Your task to perform on an android device: check google app version Image 0: 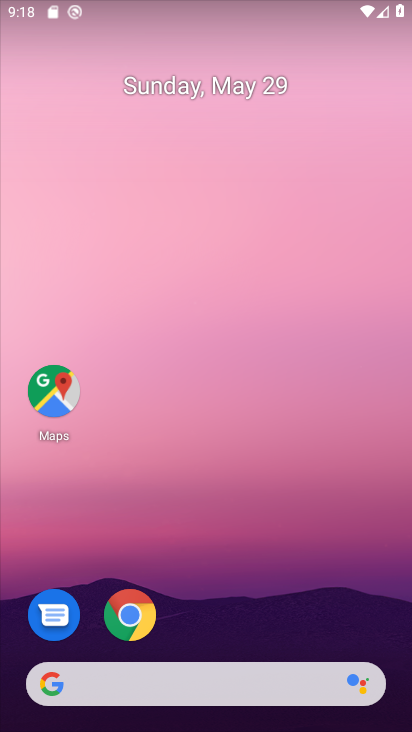
Step 0: drag from (243, 618) to (246, 6)
Your task to perform on an android device: check google app version Image 1: 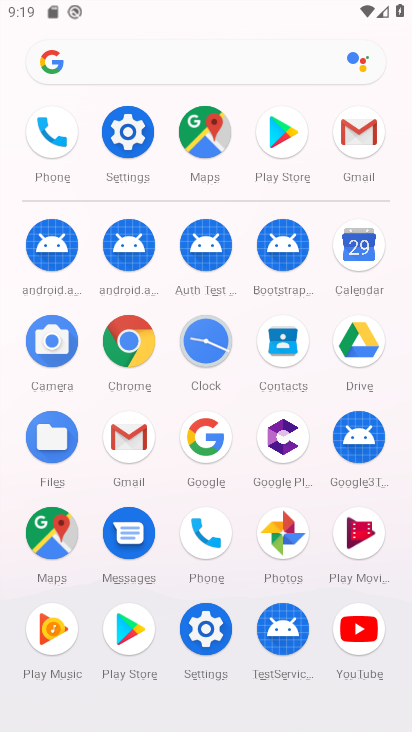
Step 1: click (208, 429)
Your task to perform on an android device: check google app version Image 2: 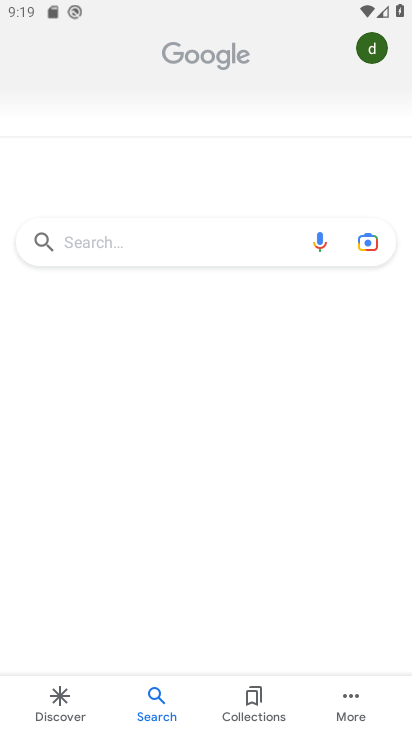
Step 2: click (349, 702)
Your task to perform on an android device: check google app version Image 3: 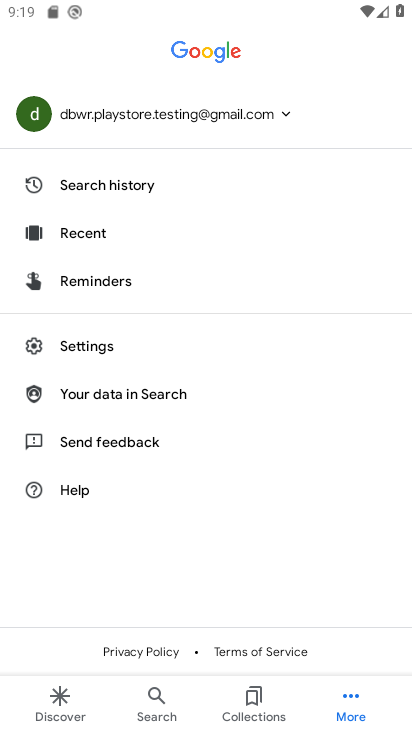
Step 3: click (76, 343)
Your task to perform on an android device: check google app version Image 4: 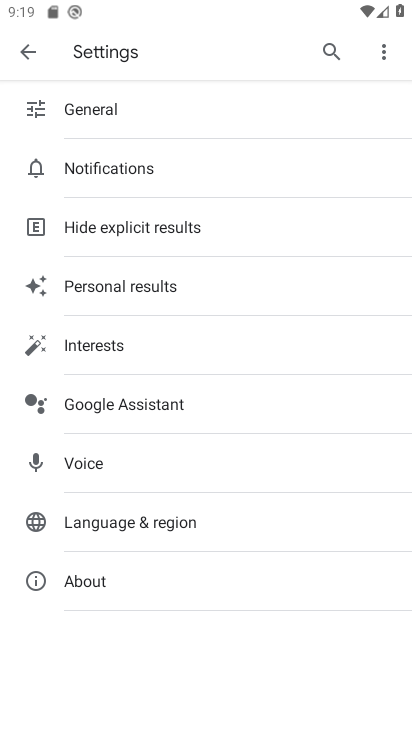
Step 4: click (83, 588)
Your task to perform on an android device: check google app version Image 5: 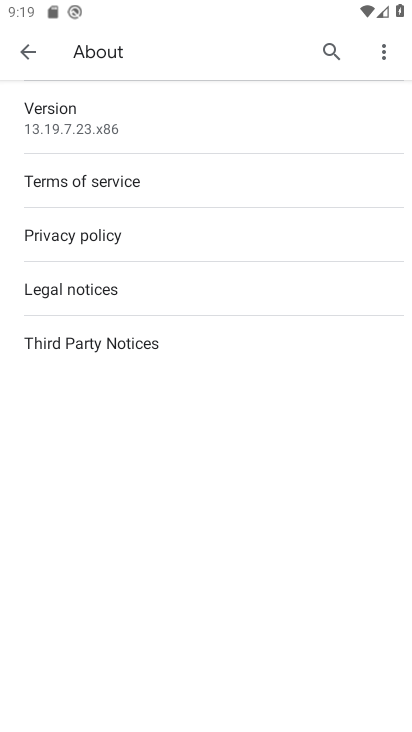
Step 5: click (101, 121)
Your task to perform on an android device: check google app version Image 6: 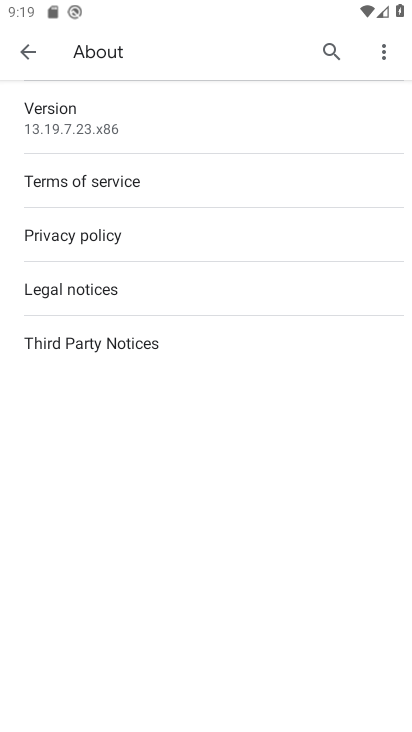
Step 6: task complete